Your task to perform on an android device: delete the emails in spam in the gmail app Image 0: 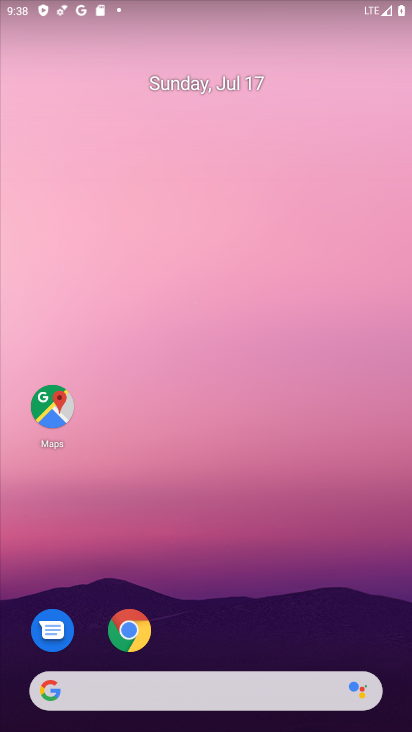
Step 0: press home button
Your task to perform on an android device: delete the emails in spam in the gmail app Image 1: 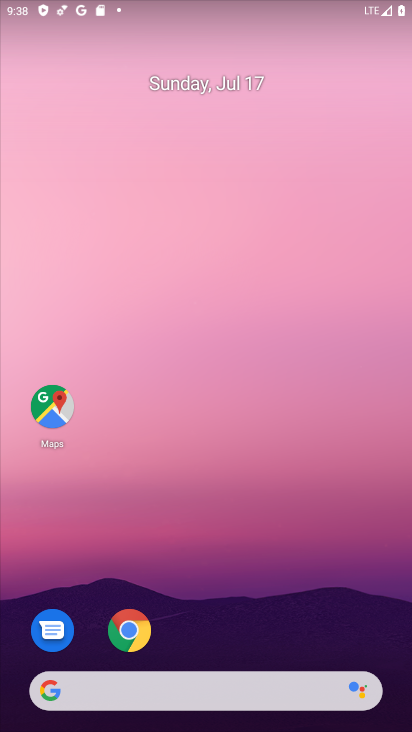
Step 1: drag from (215, 652) to (242, 70)
Your task to perform on an android device: delete the emails in spam in the gmail app Image 2: 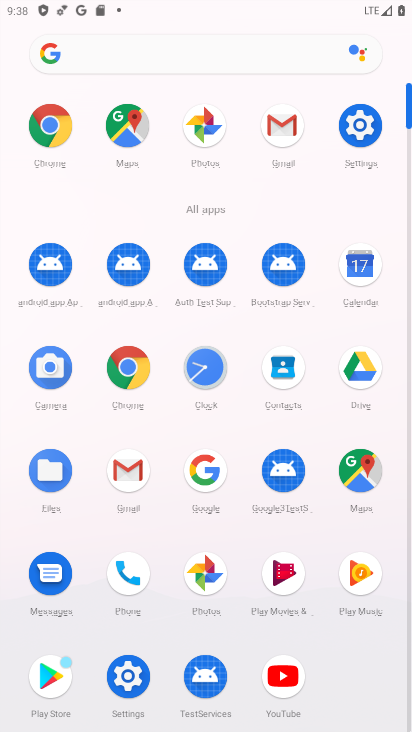
Step 2: click (280, 111)
Your task to perform on an android device: delete the emails in spam in the gmail app Image 3: 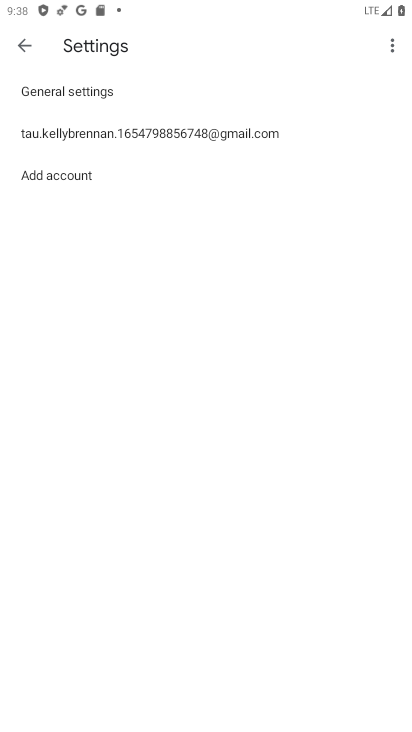
Step 3: click (18, 39)
Your task to perform on an android device: delete the emails in spam in the gmail app Image 4: 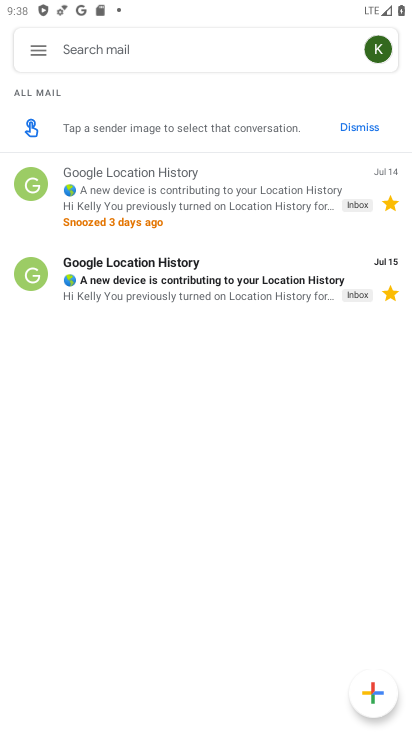
Step 4: click (39, 49)
Your task to perform on an android device: delete the emails in spam in the gmail app Image 5: 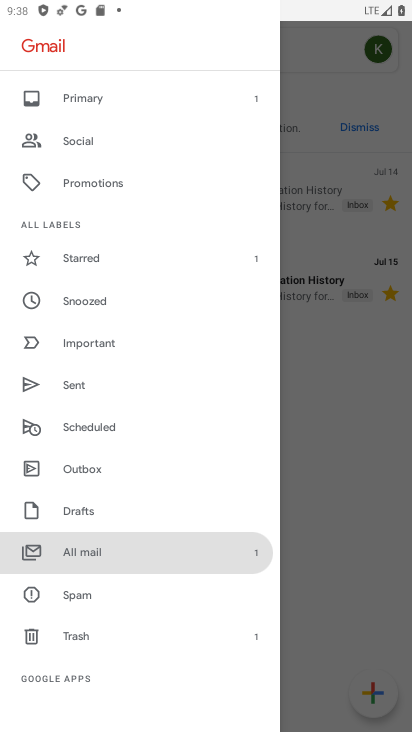
Step 5: click (103, 590)
Your task to perform on an android device: delete the emails in spam in the gmail app Image 6: 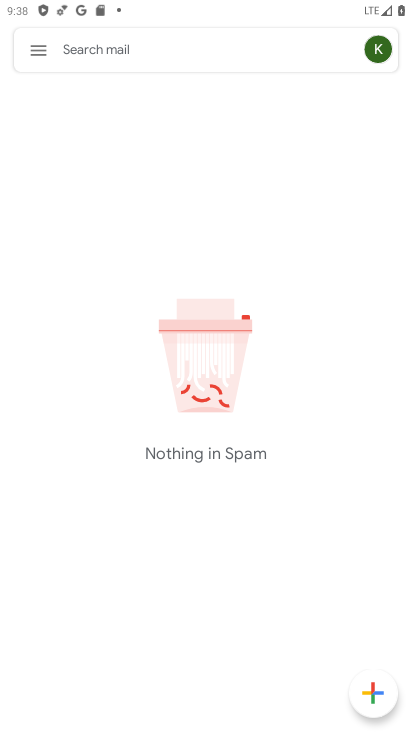
Step 6: task complete